Your task to perform on an android device: Do I have any events this weekend? Image 0: 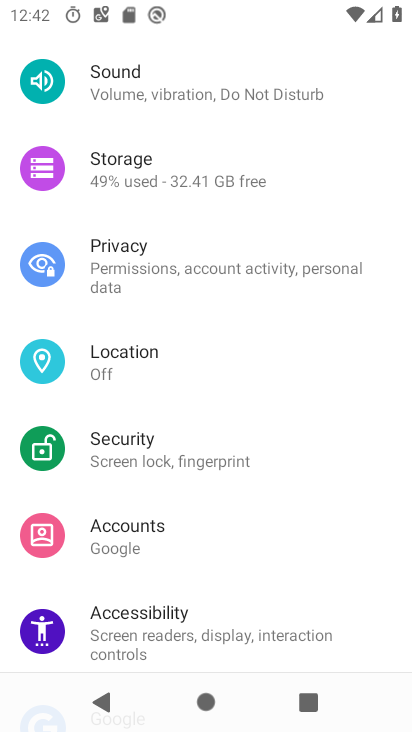
Step 0: press home button
Your task to perform on an android device: Do I have any events this weekend? Image 1: 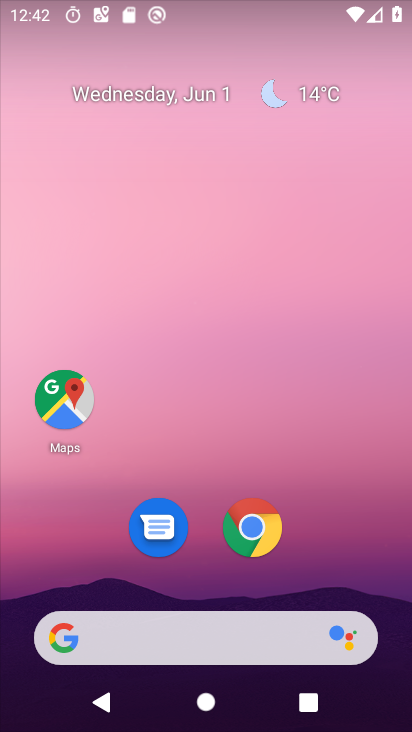
Step 1: drag from (362, 597) to (311, 18)
Your task to perform on an android device: Do I have any events this weekend? Image 2: 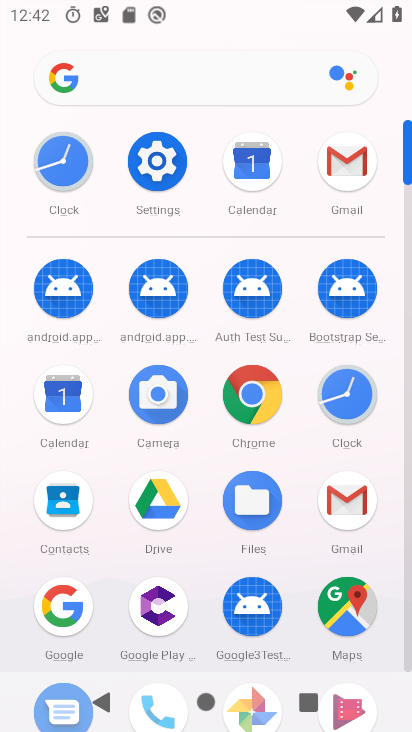
Step 2: click (250, 157)
Your task to perform on an android device: Do I have any events this weekend? Image 3: 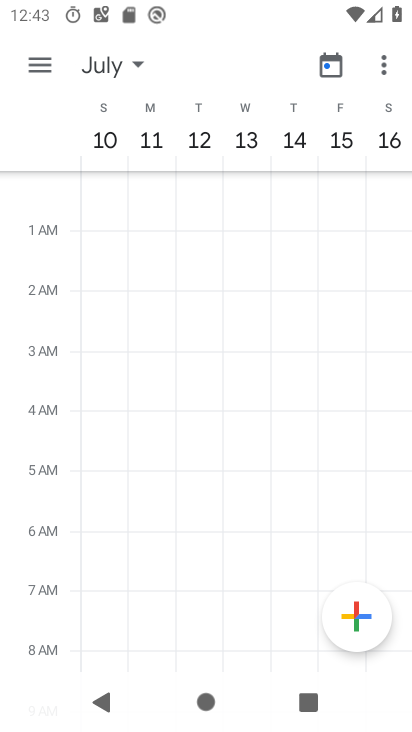
Step 3: click (320, 68)
Your task to perform on an android device: Do I have any events this weekend? Image 4: 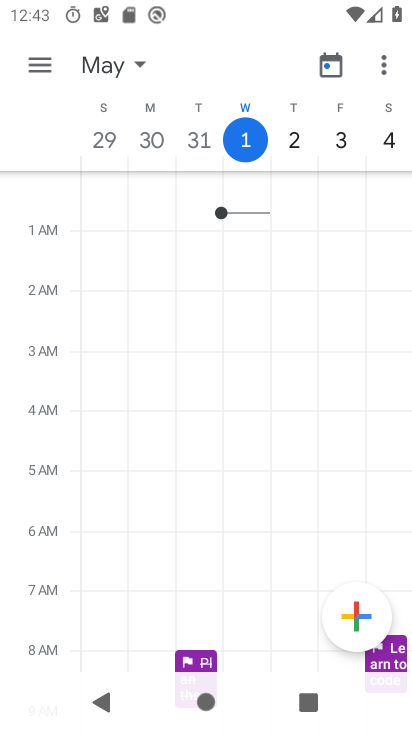
Step 4: task complete